Your task to perform on an android device: toggle priority inbox in the gmail app Image 0: 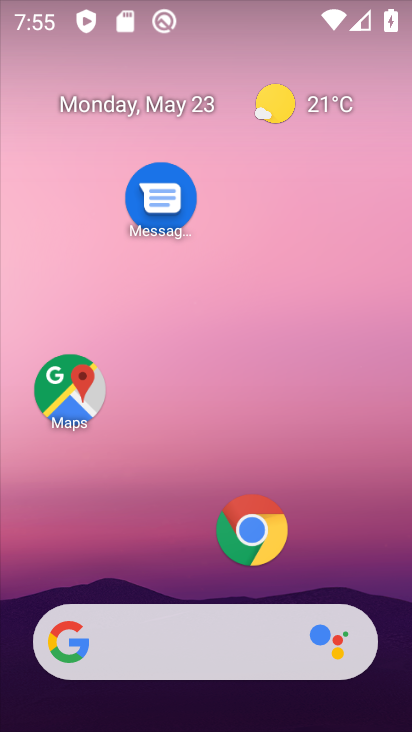
Step 0: drag from (184, 578) to (177, 117)
Your task to perform on an android device: toggle priority inbox in the gmail app Image 1: 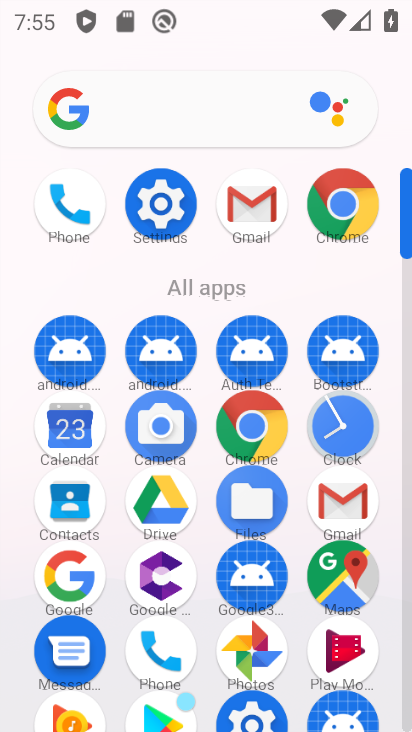
Step 1: click (248, 174)
Your task to perform on an android device: toggle priority inbox in the gmail app Image 2: 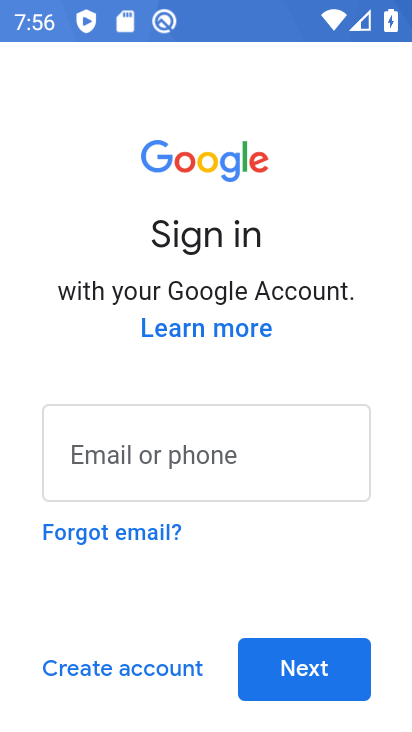
Step 2: task complete